Your task to perform on an android device: Open the map Image 0: 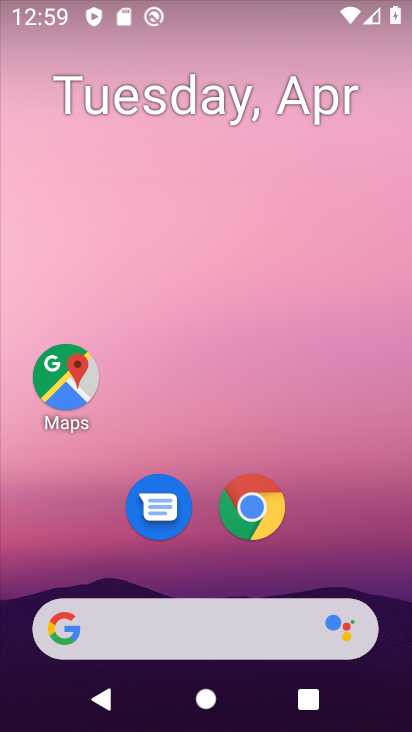
Step 0: click (63, 385)
Your task to perform on an android device: Open the map Image 1: 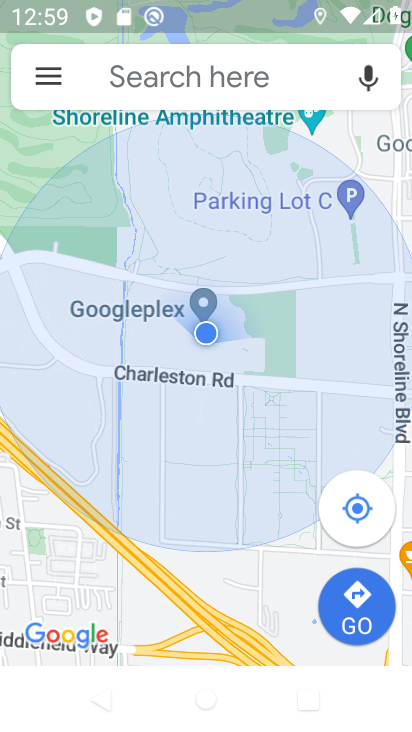
Step 1: task complete